Your task to perform on an android device: turn on data saver in the chrome app Image 0: 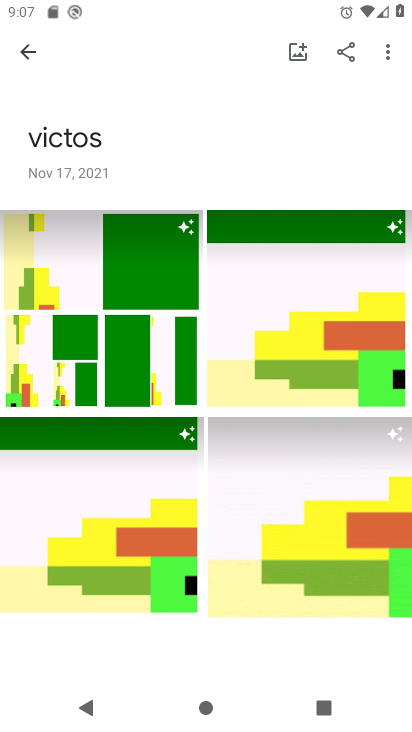
Step 0: press home button
Your task to perform on an android device: turn on data saver in the chrome app Image 1: 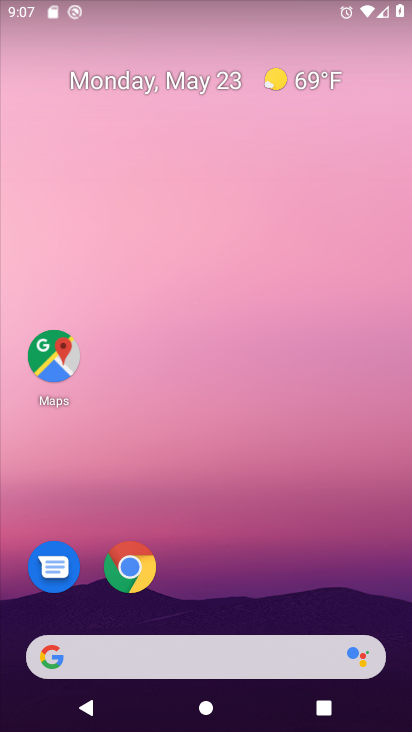
Step 1: drag from (198, 622) to (247, 256)
Your task to perform on an android device: turn on data saver in the chrome app Image 2: 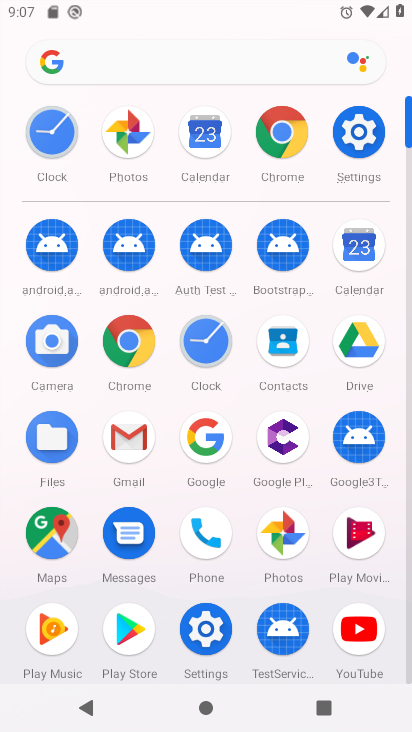
Step 2: click (132, 346)
Your task to perform on an android device: turn on data saver in the chrome app Image 3: 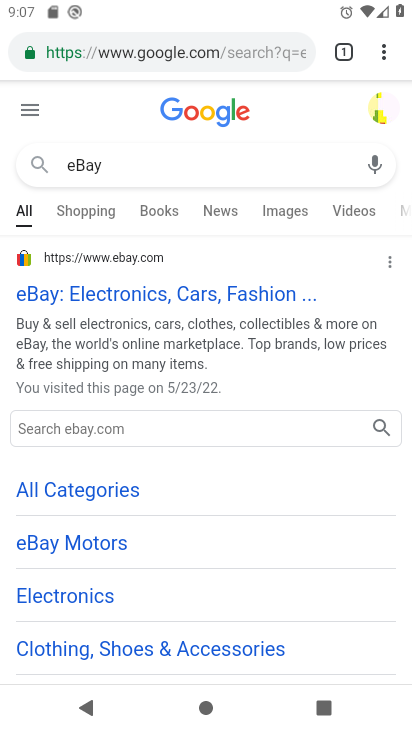
Step 3: click (379, 66)
Your task to perform on an android device: turn on data saver in the chrome app Image 4: 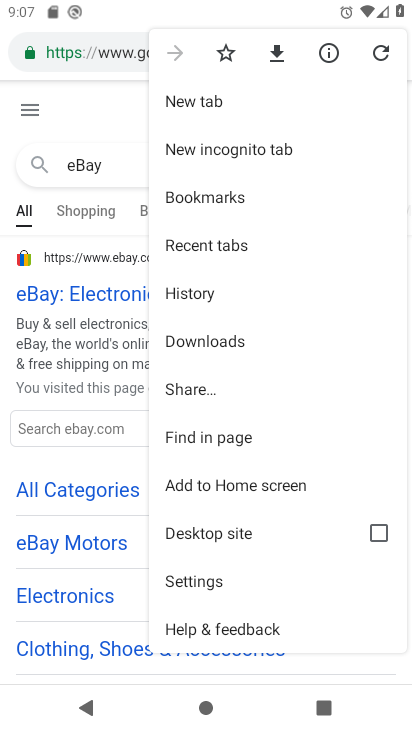
Step 4: drag from (256, 546) to (273, 326)
Your task to perform on an android device: turn on data saver in the chrome app Image 5: 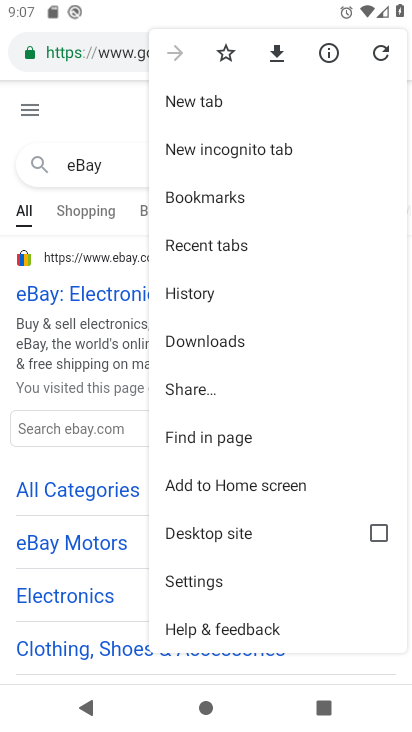
Step 5: click (216, 579)
Your task to perform on an android device: turn on data saver in the chrome app Image 6: 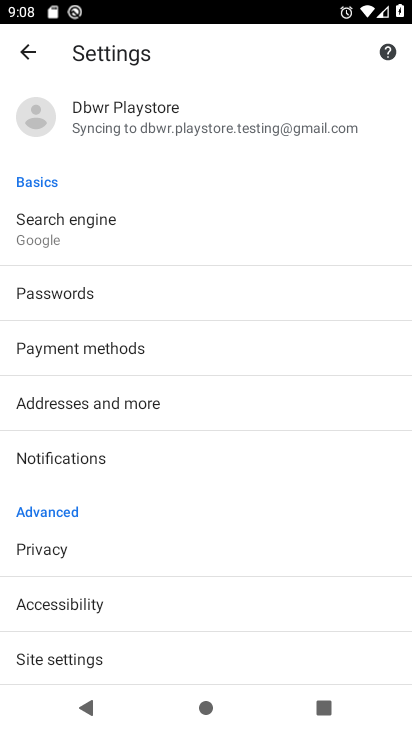
Step 6: drag from (116, 598) to (158, 297)
Your task to perform on an android device: turn on data saver in the chrome app Image 7: 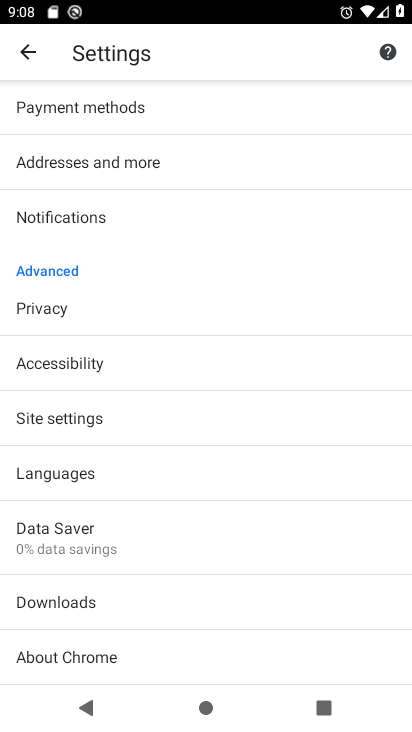
Step 7: click (93, 540)
Your task to perform on an android device: turn on data saver in the chrome app Image 8: 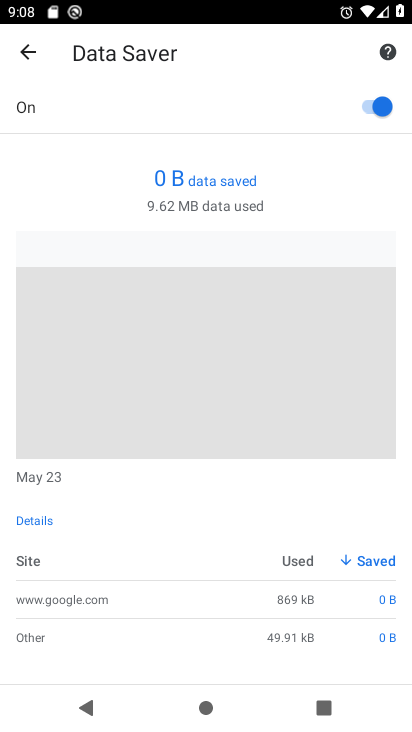
Step 8: task complete